Your task to perform on an android device: open app "Flipkart Online Shopping App" Image 0: 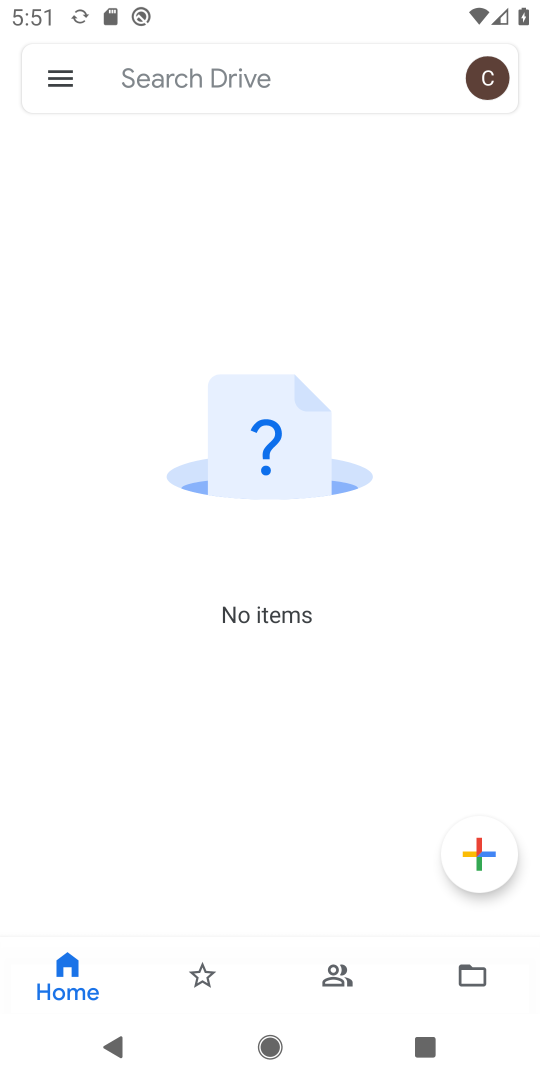
Step 0: press home button
Your task to perform on an android device: open app "Flipkart Online Shopping App" Image 1: 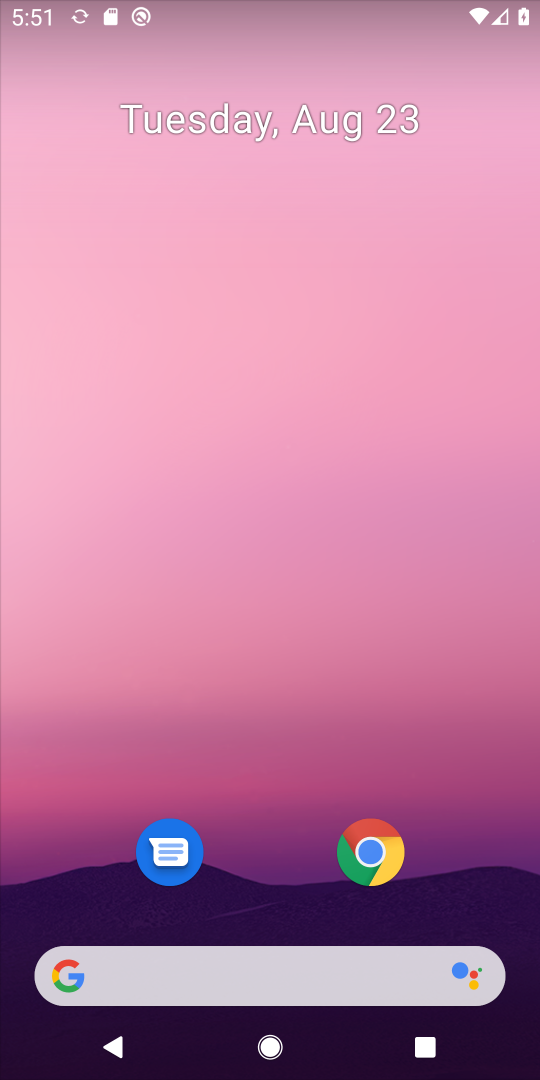
Step 1: drag from (188, 955) to (311, 113)
Your task to perform on an android device: open app "Flipkart Online Shopping App" Image 2: 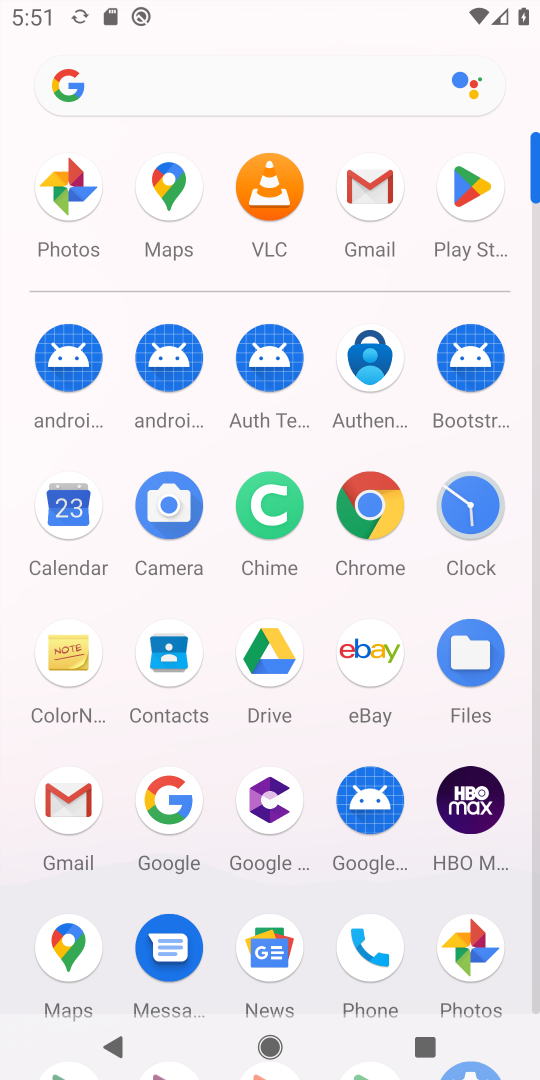
Step 2: click (472, 190)
Your task to perform on an android device: open app "Flipkart Online Shopping App" Image 3: 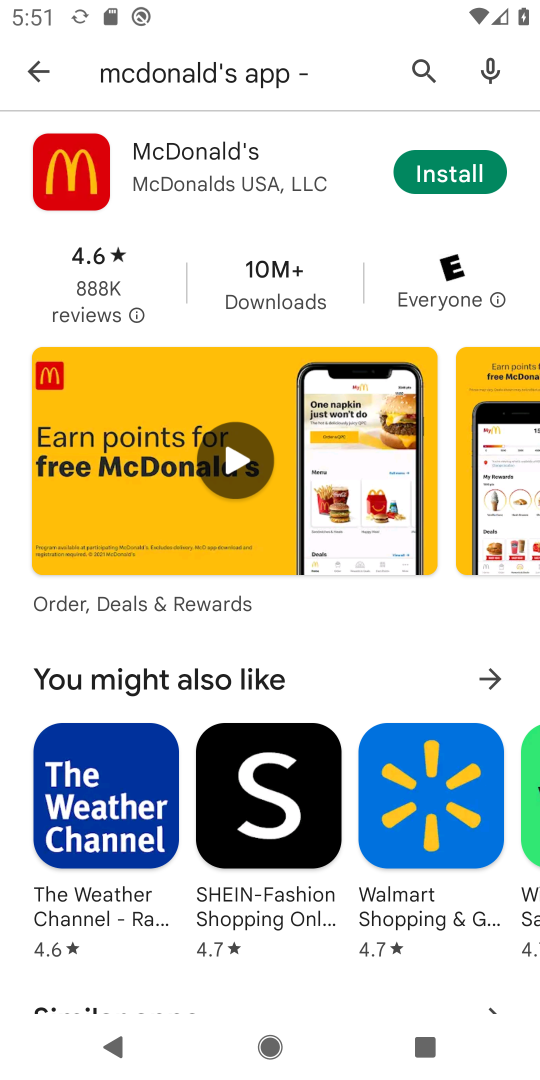
Step 3: press back button
Your task to perform on an android device: open app "Flipkart Online Shopping App" Image 4: 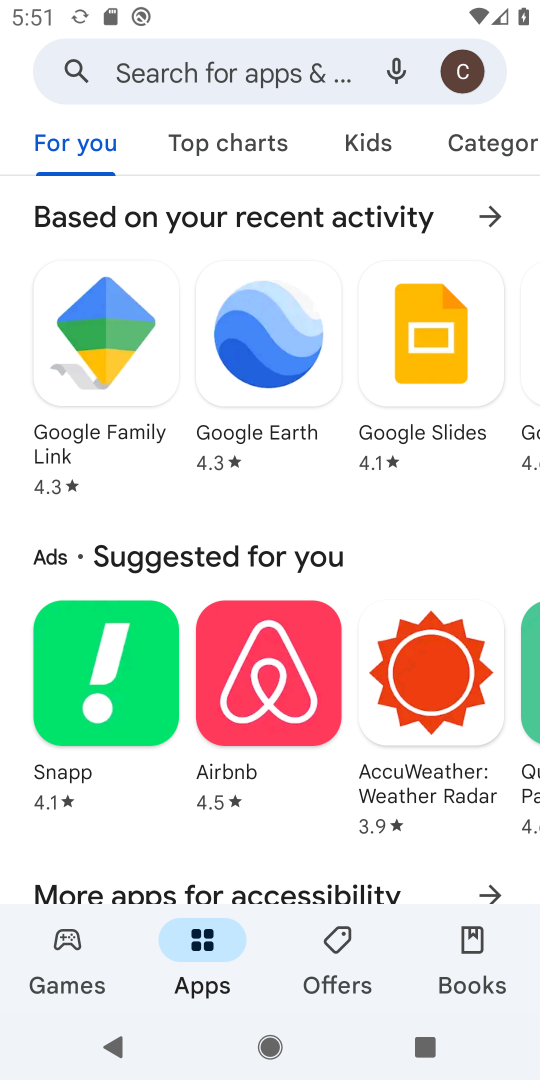
Step 4: click (323, 80)
Your task to perform on an android device: open app "Flipkart Online Shopping App" Image 5: 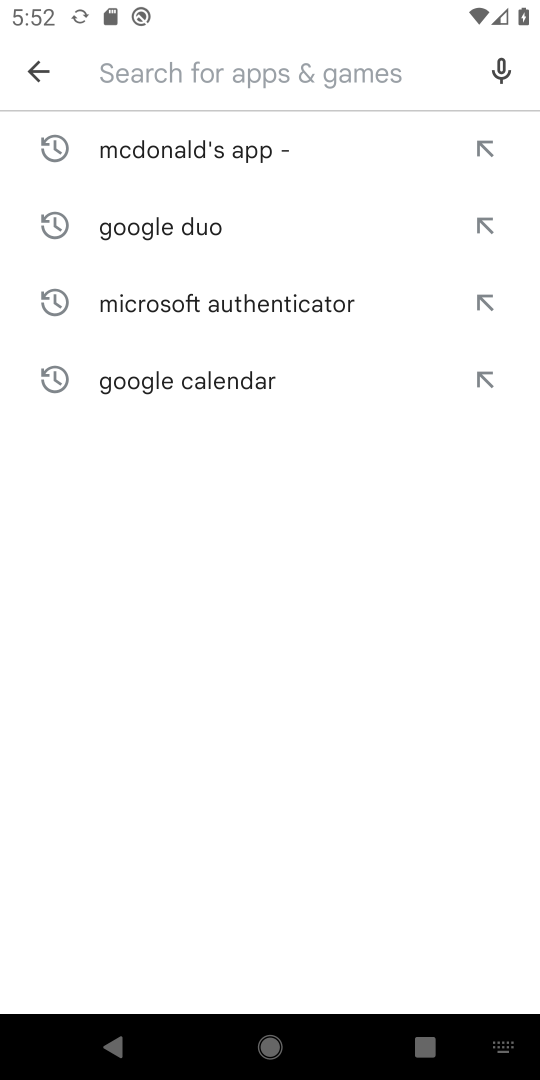
Step 5: type "Flipkart Online Shopping App"
Your task to perform on an android device: open app "Flipkart Online Shopping App" Image 6: 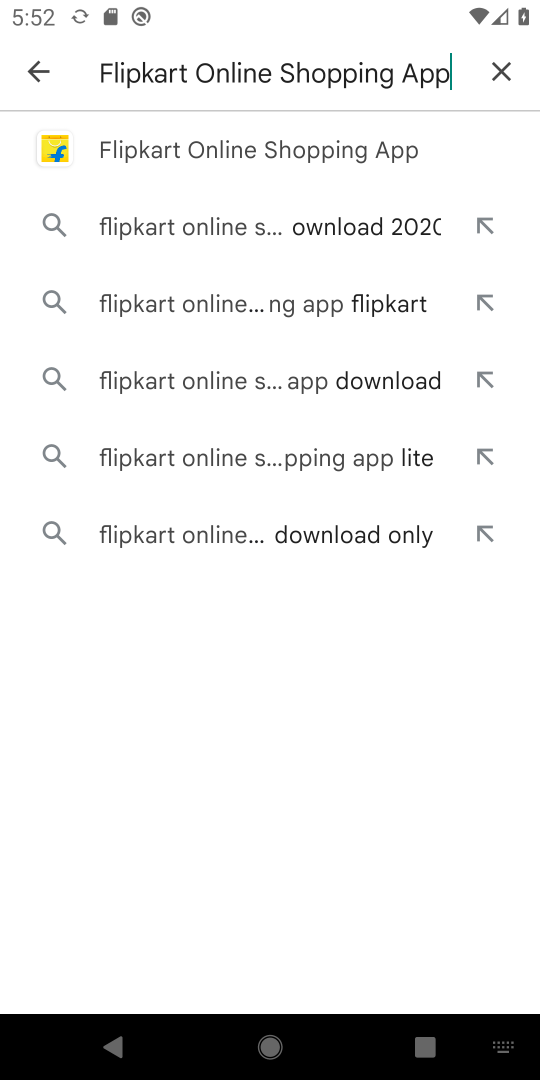
Step 6: click (249, 156)
Your task to perform on an android device: open app "Flipkart Online Shopping App" Image 7: 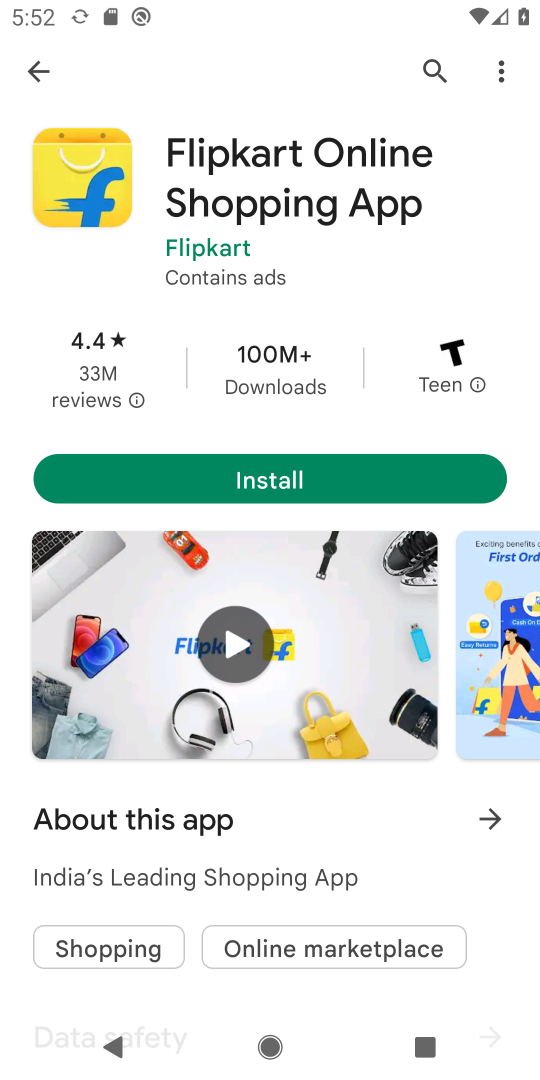
Step 7: task complete